Your task to perform on an android device: Go to display settings Image 0: 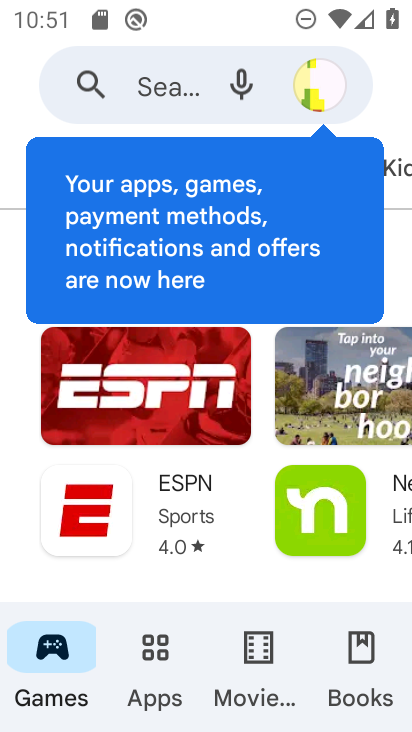
Step 0: press home button
Your task to perform on an android device: Go to display settings Image 1: 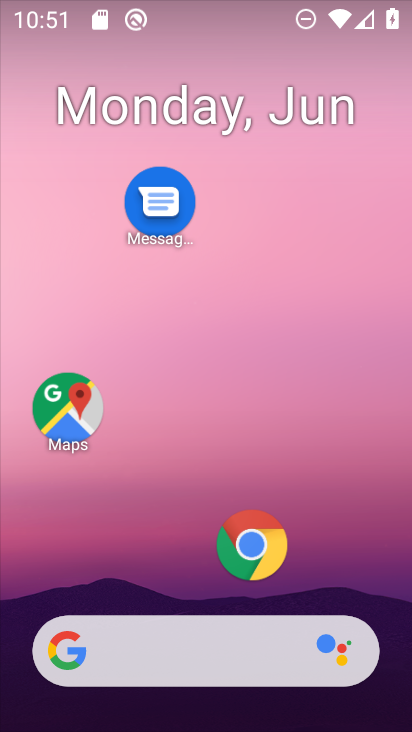
Step 1: drag from (153, 603) to (233, 251)
Your task to perform on an android device: Go to display settings Image 2: 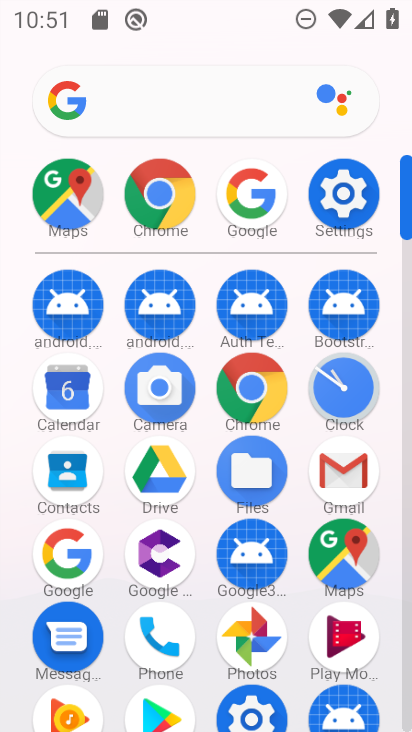
Step 2: click (338, 189)
Your task to perform on an android device: Go to display settings Image 3: 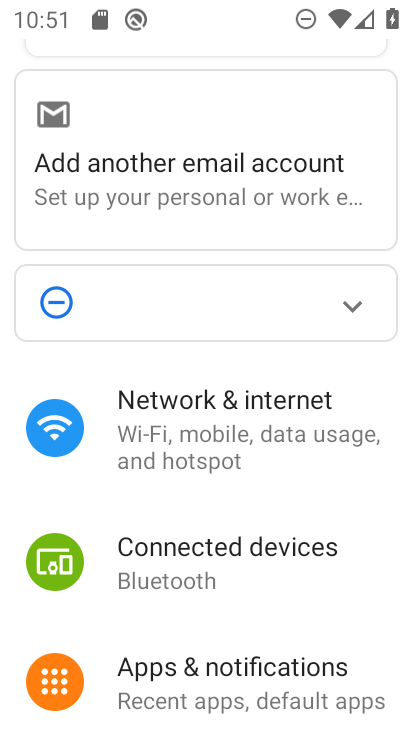
Step 3: drag from (214, 599) to (291, 203)
Your task to perform on an android device: Go to display settings Image 4: 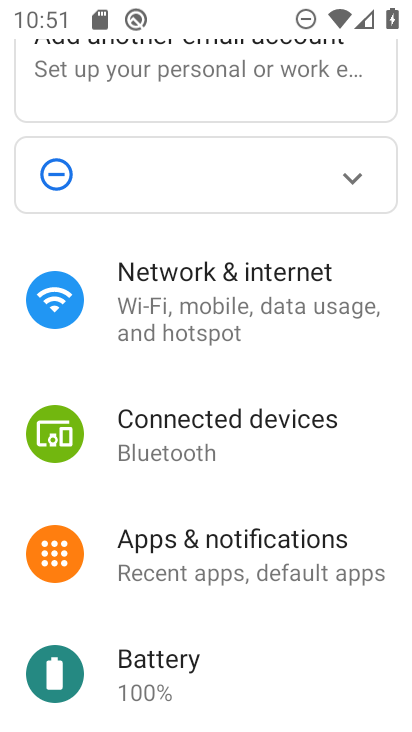
Step 4: drag from (215, 687) to (290, 314)
Your task to perform on an android device: Go to display settings Image 5: 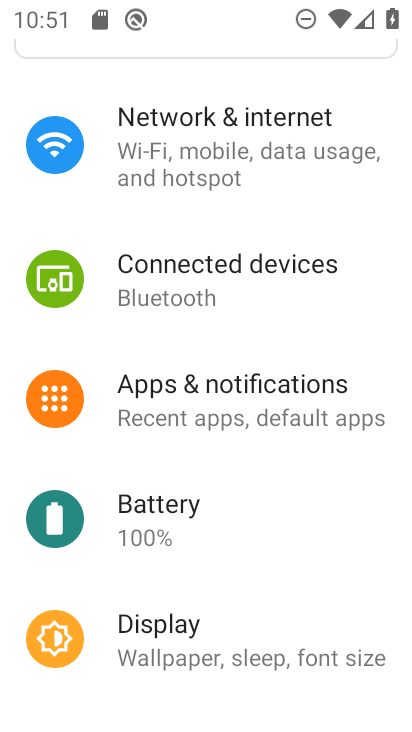
Step 5: click (196, 638)
Your task to perform on an android device: Go to display settings Image 6: 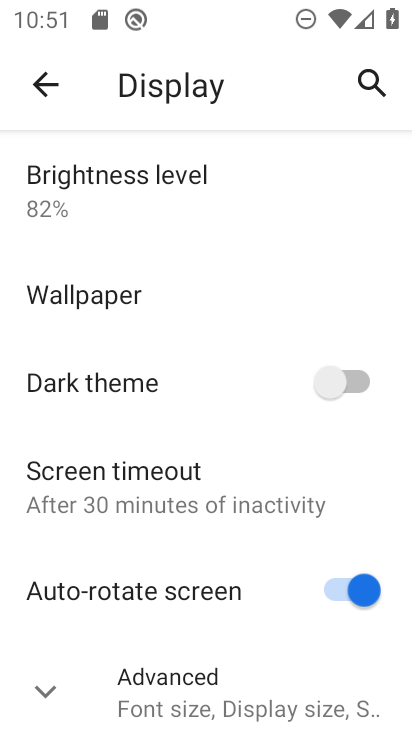
Step 6: task complete